Your task to perform on an android device: Go to sound settings Image 0: 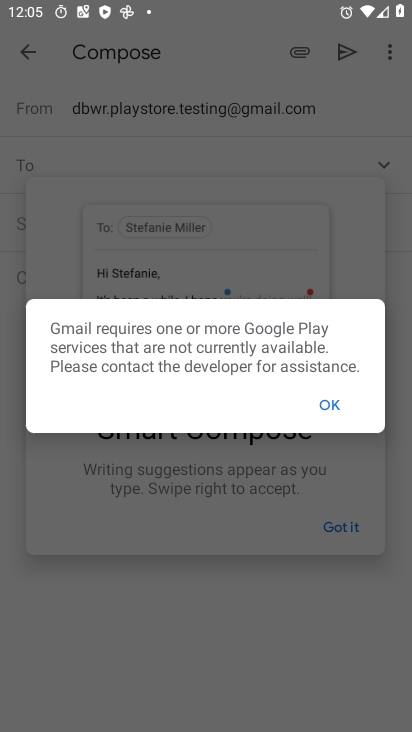
Step 0: press home button
Your task to perform on an android device: Go to sound settings Image 1: 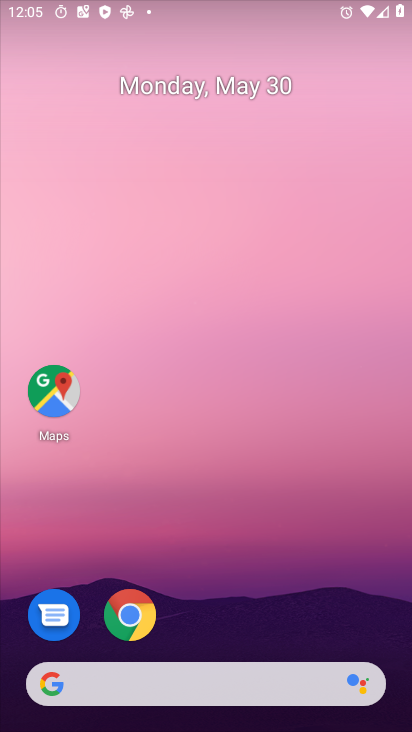
Step 1: drag from (238, 588) to (260, 91)
Your task to perform on an android device: Go to sound settings Image 2: 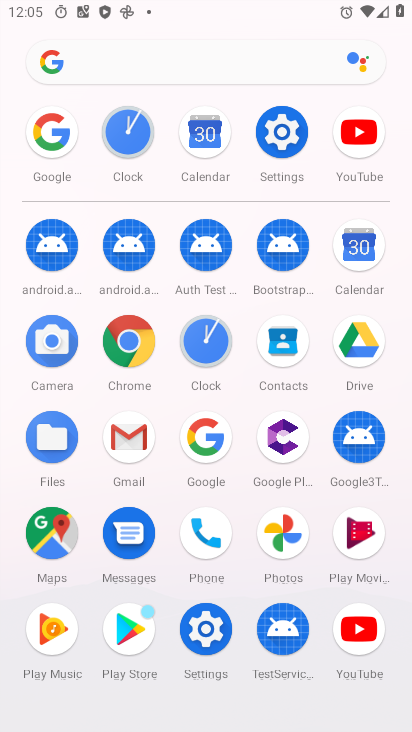
Step 2: click (282, 134)
Your task to perform on an android device: Go to sound settings Image 3: 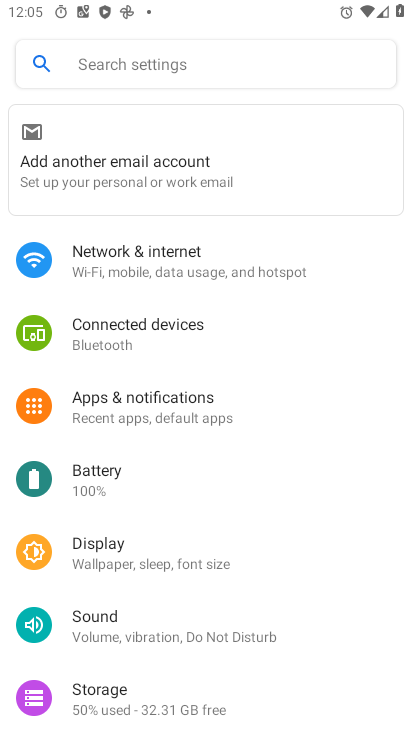
Step 3: click (131, 620)
Your task to perform on an android device: Go to sound settings Image 4: 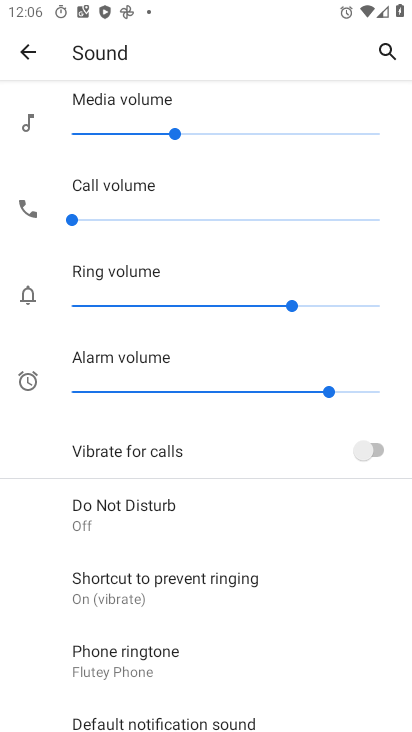
Step 4: task complete